Your task to perform on an android device: see tabs open on other devices in the chrome app Image 0: 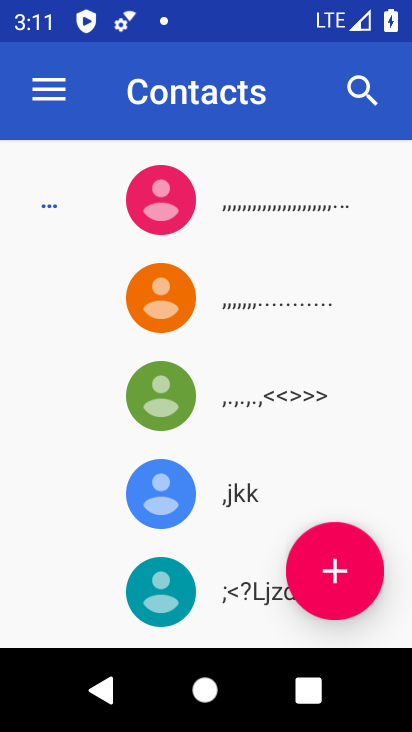
Step 0: press home button
Your task to perform on an android device: see tabs open on other devices in the chrome app Image 1: 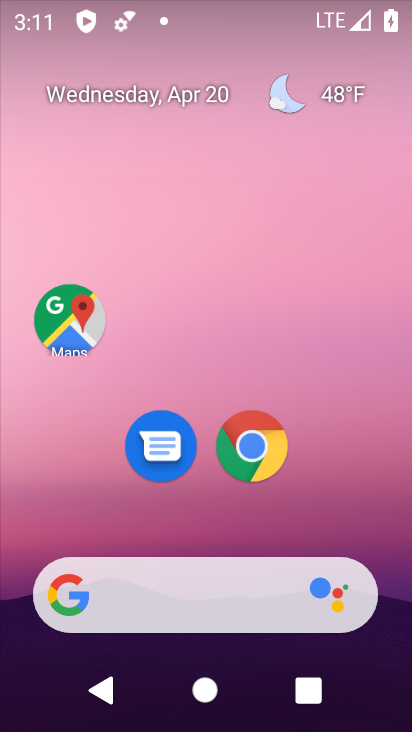
Step 1: click (252, 443)
Your task to perform on an android device: see tabs open on other devices in the chrome app Image 2: 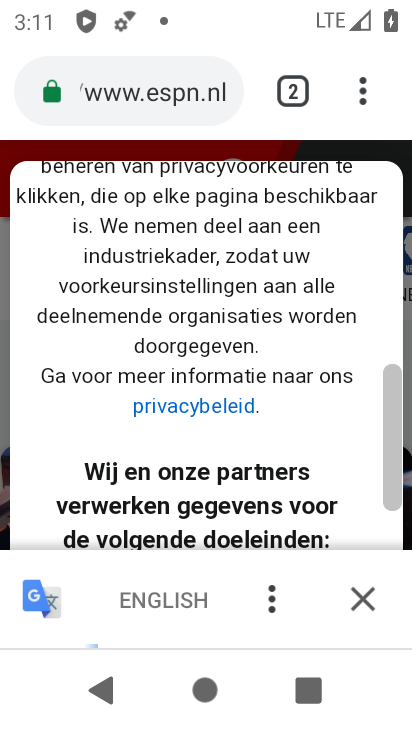
Step 2: click (363, 97)
Your task to perform on an android device: see tabs open on other devices in the chrome app Image 3: 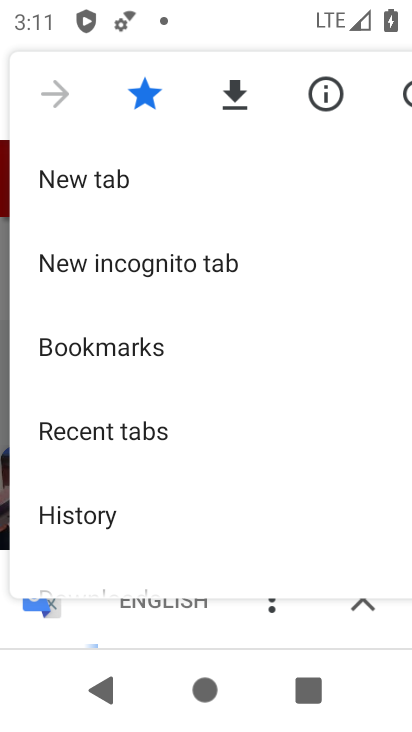
Step 3: click (136, 440)
Your task to perform on an android device: see tabs open on other devices in the chrome app Image 4: 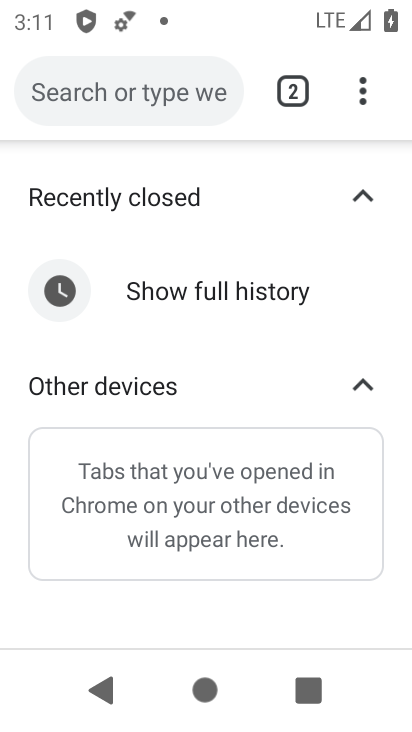
Step 4: click (353, 197)
Your task to perform on an android device: see tabs open on other devices in the chrome app Image 5: 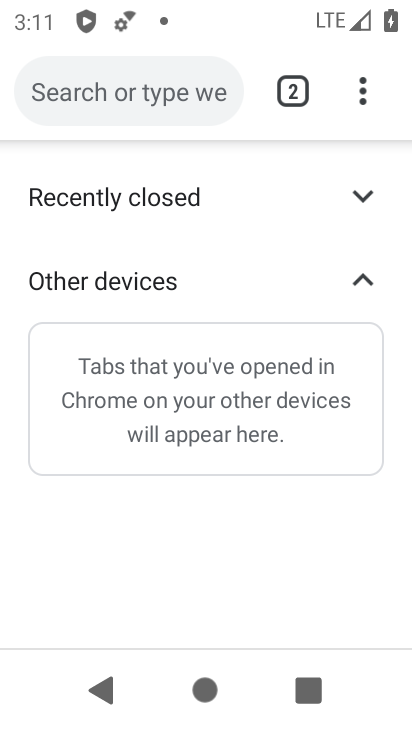
Step 5: task complete